Your task to perform on an android device: turn vacation reply on in the gmail app Image 0: 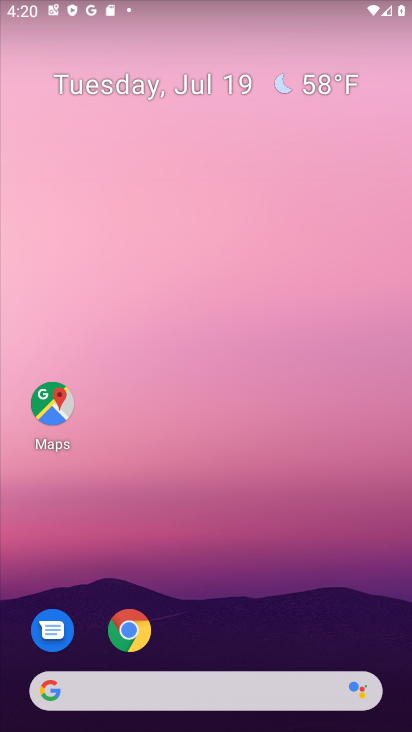
Step 0: press home button
Your task to perform on an android device: turn vacation reply on in the gmail app Image 1: 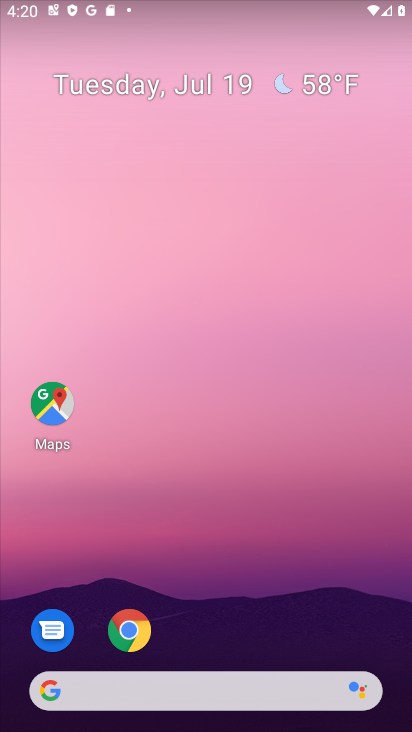
Step 1: drag from (236, 548) to (270, 235)
Your task to perform on an android device: turn vacation reply on in the gmail app Image 2: 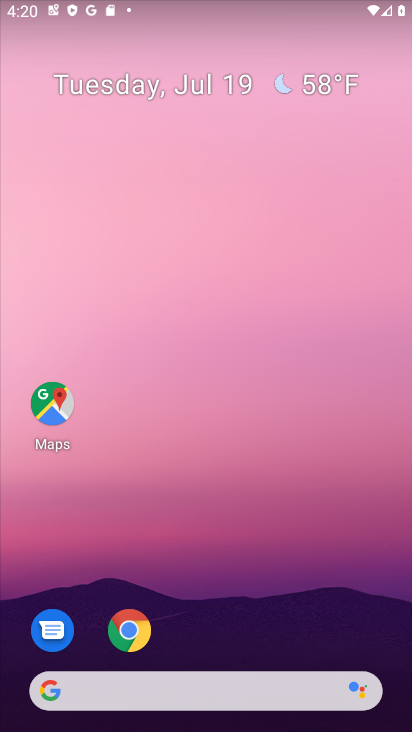
Step 2: drag from (243, 555) to (221, 125)
Your task to perform on an android device: turn vacation reply on in the gmail app Image 3: 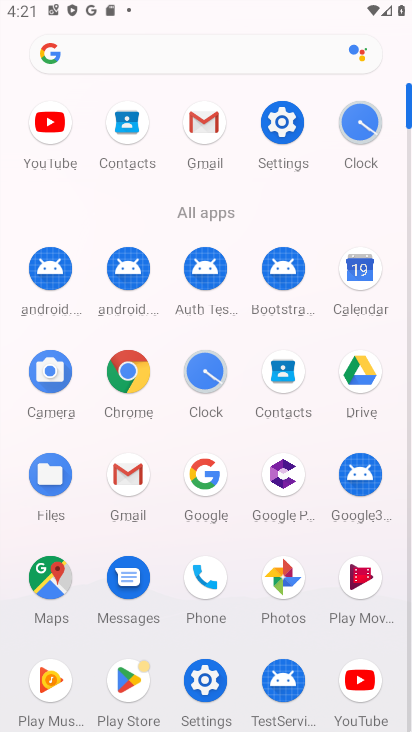
Step 3: click (204, 112)
Your task to perform on an android device: turn vacation reply on in the gmail app Image 4: 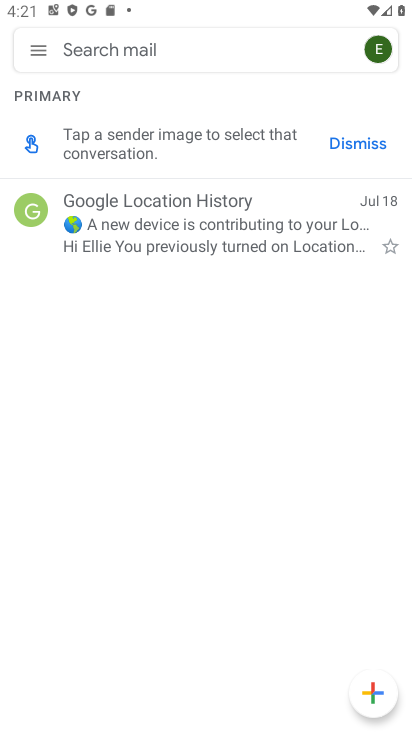
Step 4: click (33, 45)
Your task to perform on an android device: turn vacation reply on in the gmail app Image 5: 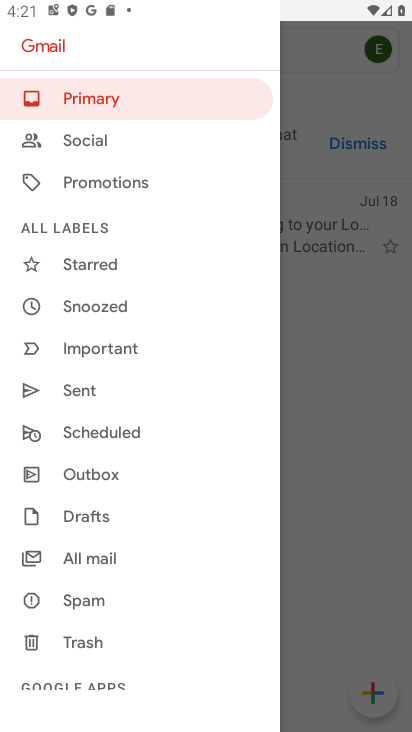
Step 5: drag from (91, 665) to (133, 287)
Your task to perform on an android device: turn vacation reply on in the gmail app Image 6: 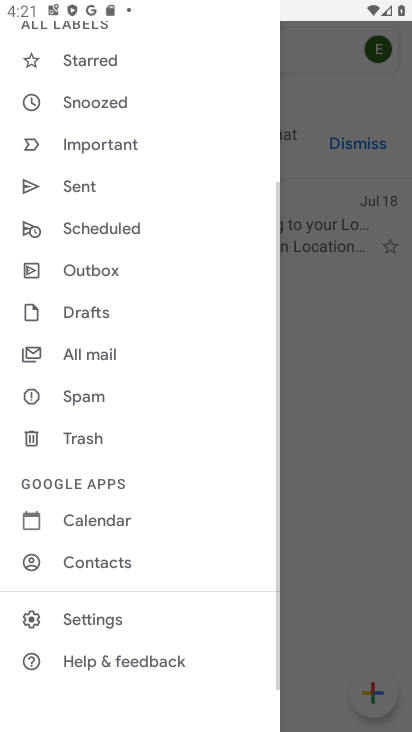
Step 6: click (101, 619)
Your task to perform on an android device: turn vacation reply on in the gmail app Image 7: 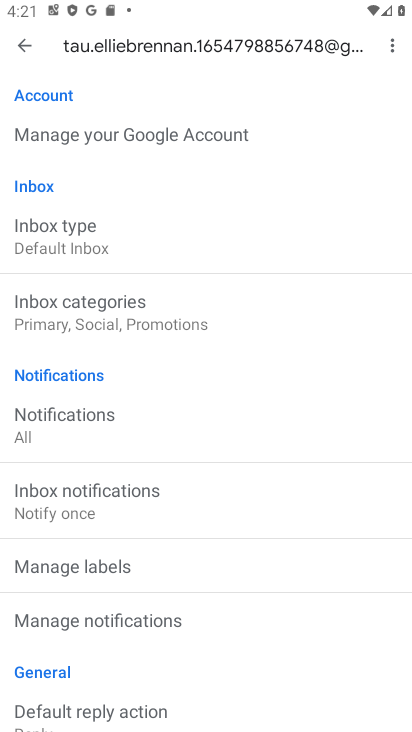
Step 7: drag from (130, 671) to (129, 178)
Your task to perform on an android device: turn vacation reply on in the gmail app Image 8: 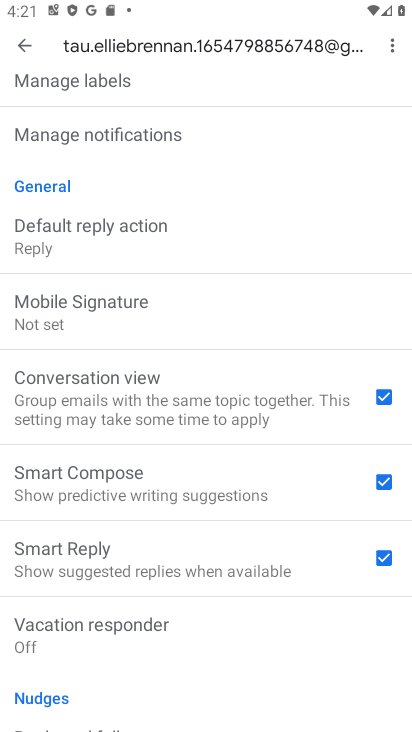
Step 8: click (214, 617)
Your task to perform on an android device: turn vacation reply on in the gmail app Image 9: 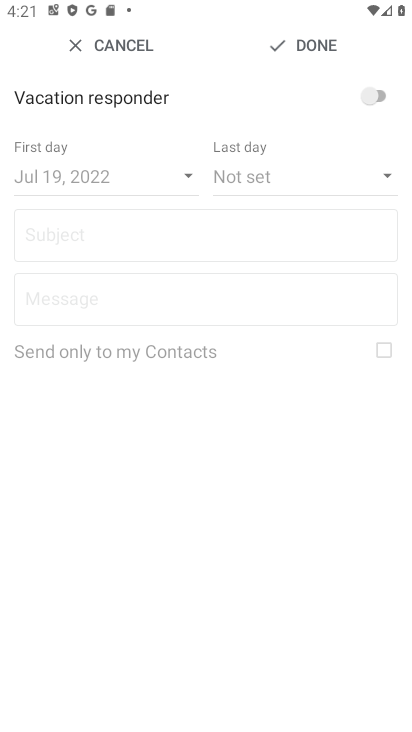
Step 9: click (381, 91)
Your task to perform on an android device: turn vacation reply on in the gmail app Image 10: 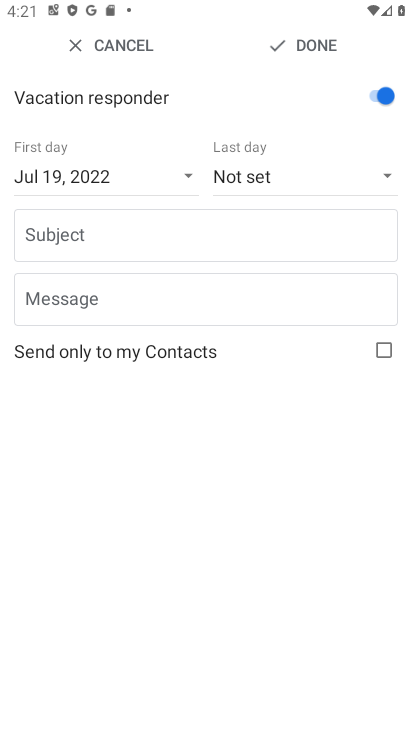
Step 10: task complete